Your task to perform on an android device: Go to Google Image 0: 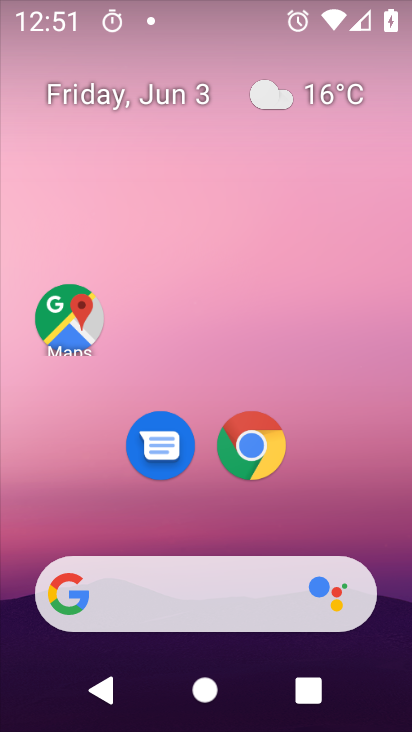
Step 0: click (154, 614)
Your task to perform on an android device: Go to Google Image 1: 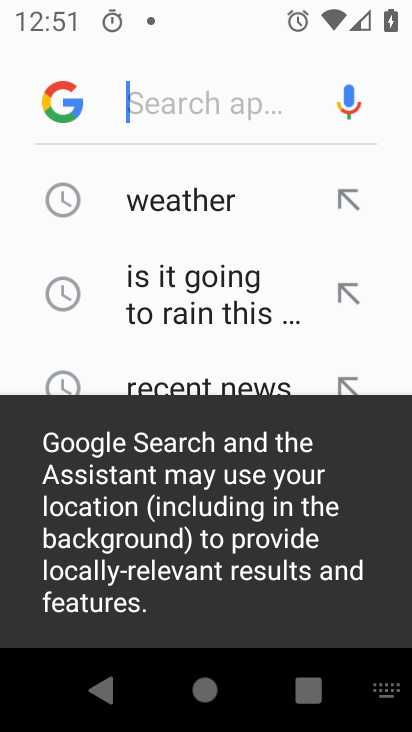
Step 1: task complete